Your task to perform on an android device: search for starred emails in the gmail app Image 0: 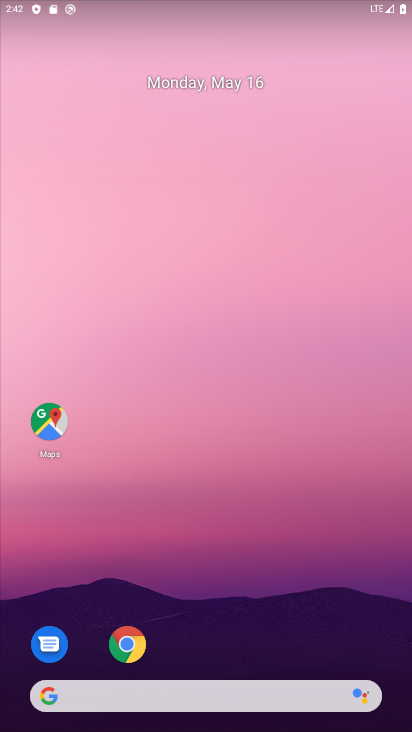
Step 0: drag from (175, 655) to (227, 118)
Your task to perform on an android device: search for starred emails in the gmail app Image 1: 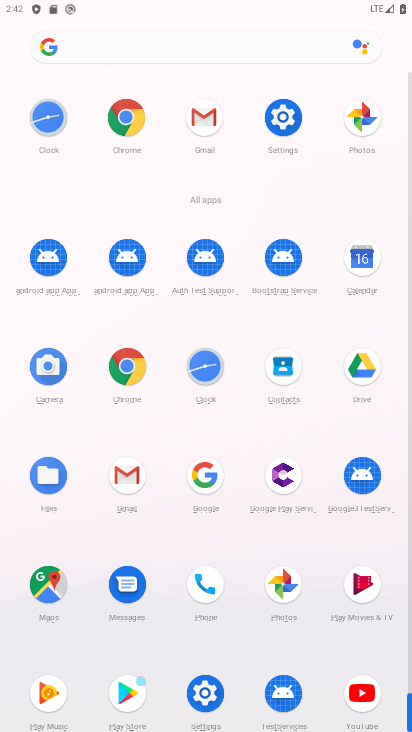
Step 1: click (119, 483)
Your task to perform on an android device: search for starred emails in the gmail app Image 2: 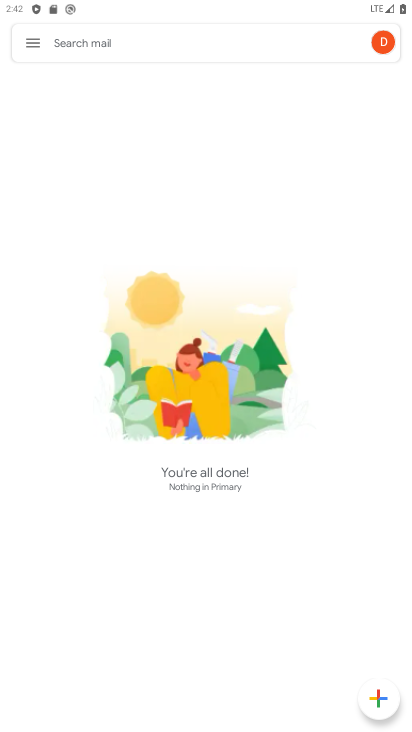
Step 2: click (36, 50)
Your task to perform on an android device: search for starred emails in the gmail app Image 3: 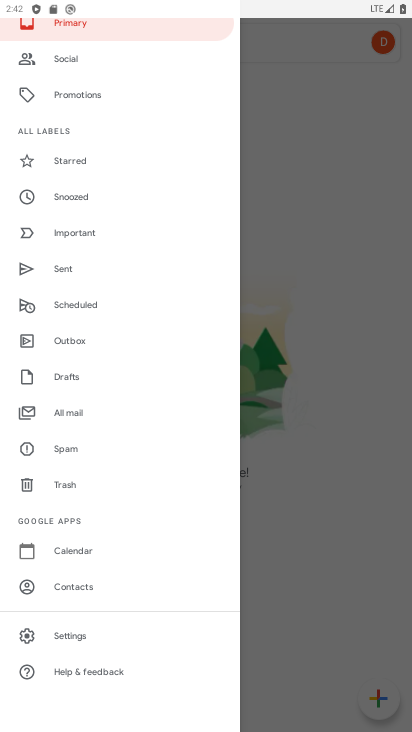
Step 3: click (112, 172)
Your task to perform on an android device: search for starred emails in the gmail app Image 4: 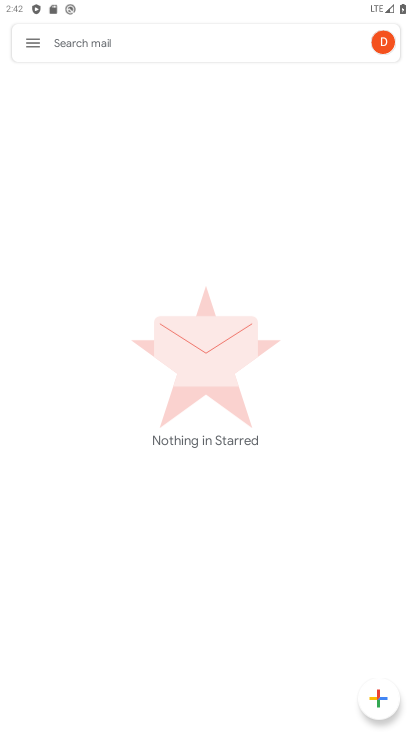
Step 4: task complete